Your task to perform on an android device: change the clock display to digital Image 0: 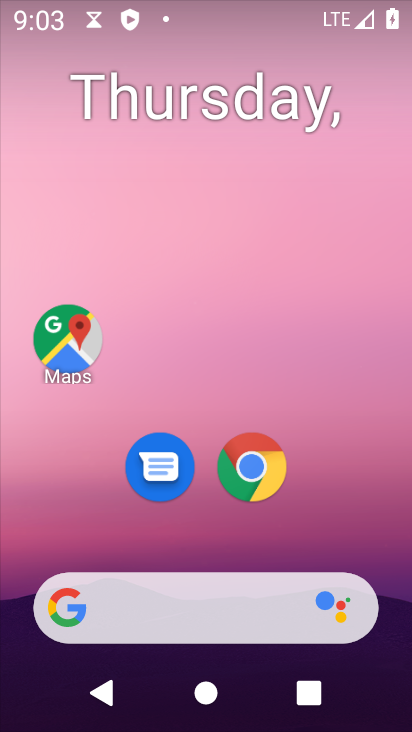
Step 0: drag from (317, 520) to (357, 95)
Your task to perform on an android device: change the clock display to digital Image 1: 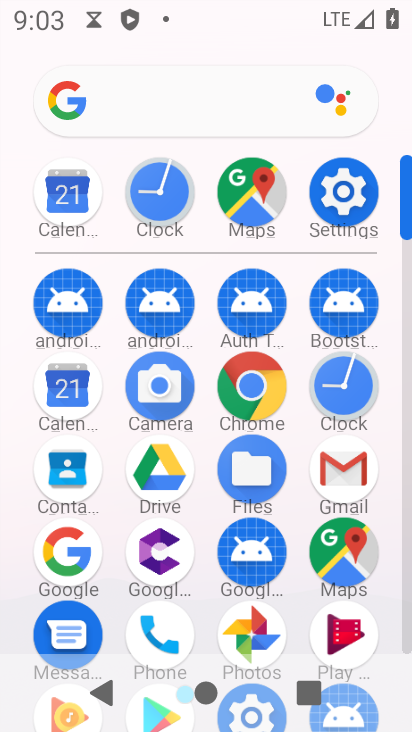
Step 1: click (339, 380)
Your task to perform on an android device: change the clock display to digital Image 2: 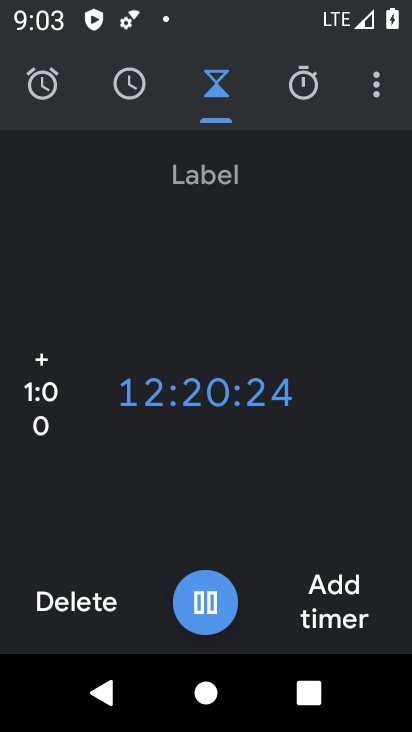
Step 2: click (367, 98)
Your task to perform on an android device: change the clock display to digital Image 3: 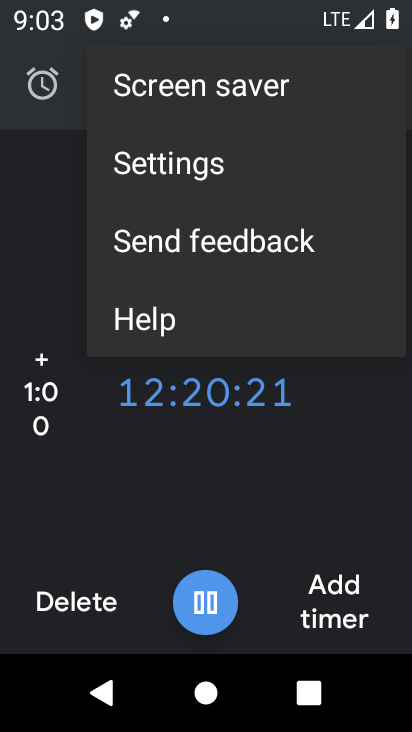
Step 3: click (198, 166)
Your task to perform on an android device: change the clock display to digital Image 4: 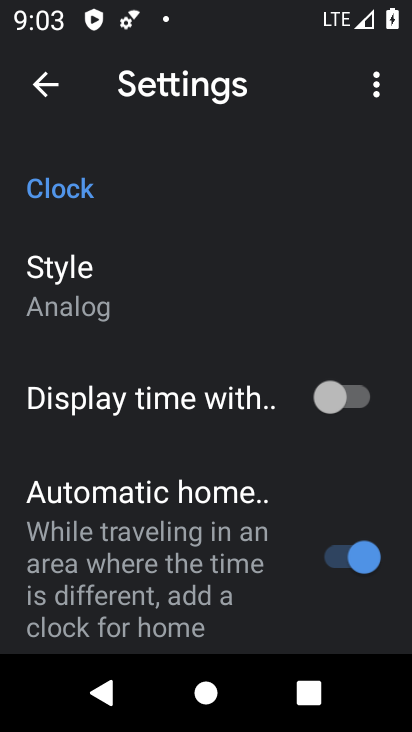
Step 4: click (120, 302)
Your task to perform on an android device: change the clock display to digital Image 5: 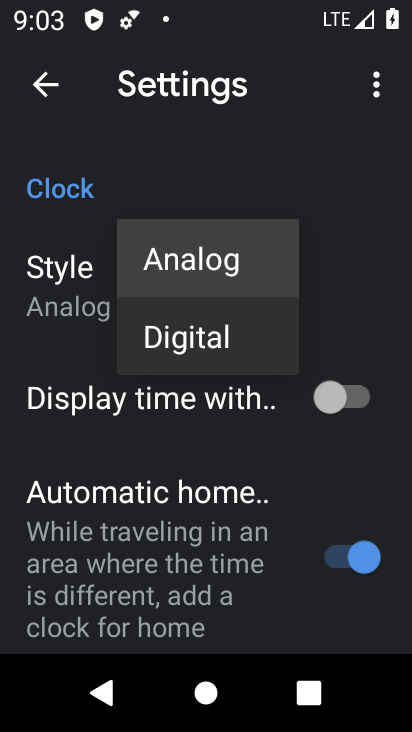
Step 5: click (183, 333)
Your task to perform on an android device: change the clock display to digital Image 6: 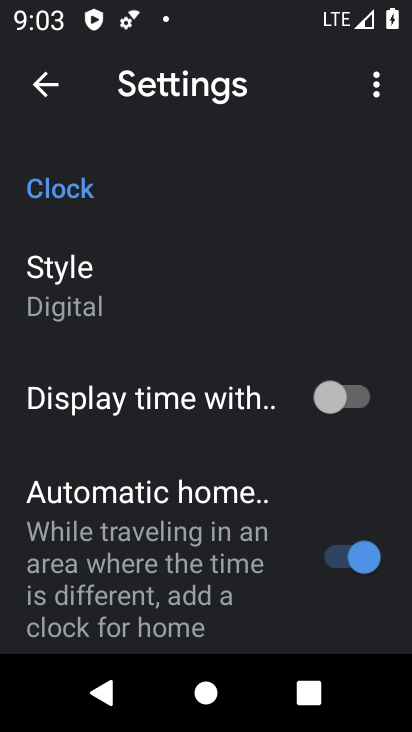
Step 6: task complete